Your task to perform on an android device: Open my contact list Image 0: 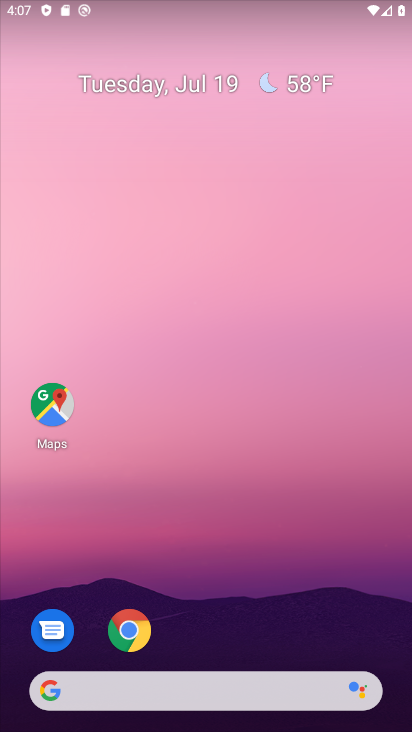
Step 0: drag from (11, 702) to (289, 146)
Your task to perform on an android device: Open my contact list Image 1: 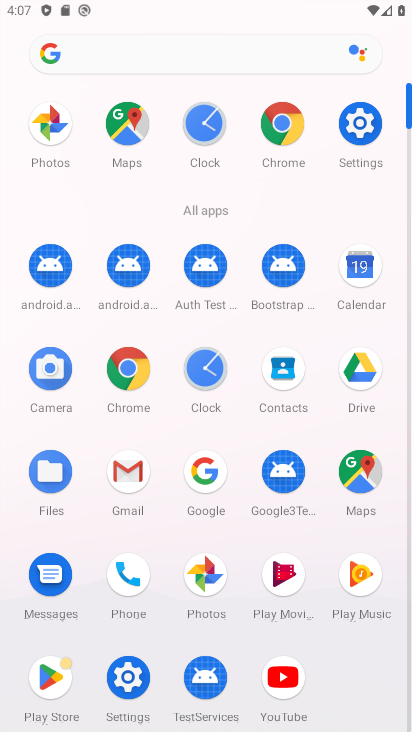
Step 1: click (136, 579)
Your task to perform on an android device: Open my contact list Image 2: 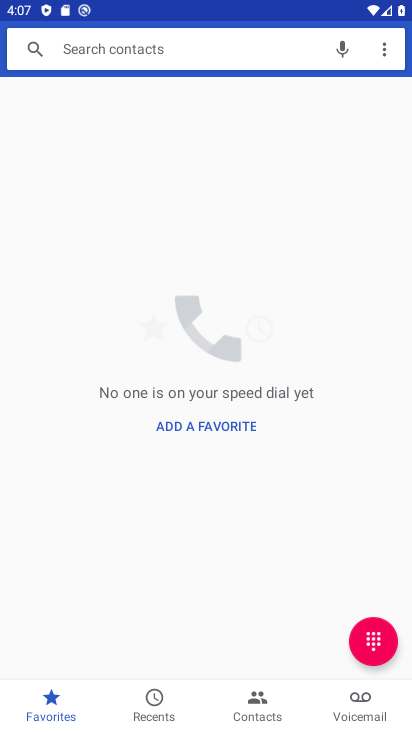
Step 2: click (190, 703)
Your task to perform on an android device: Open my contact list Image 3: 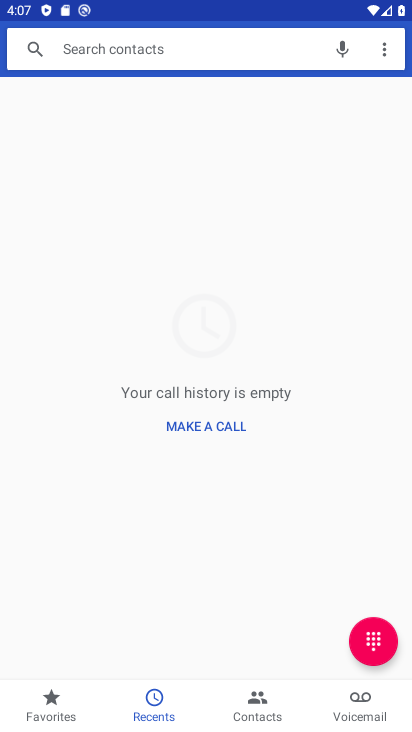
Step 3: click (251, 699)
Your task to perform on an android device: Open my contact list Image 4: 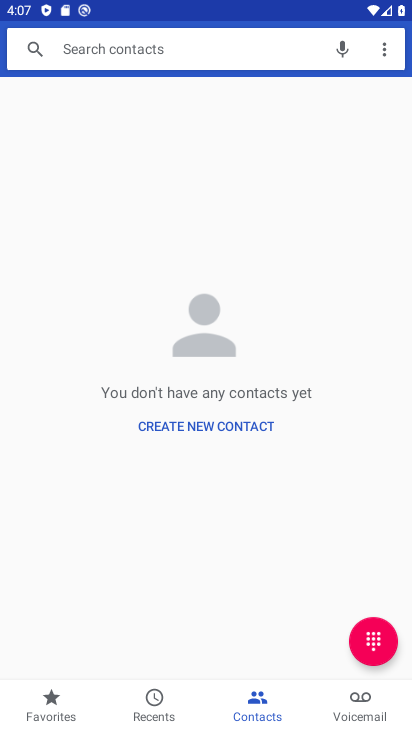
Step 4: click (268, 712)
Your task to perform on an android device: Open my contact list Image 5: 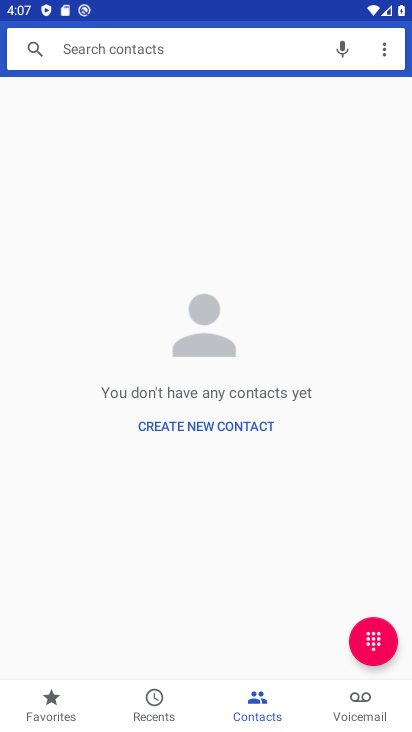
Step 5: task complete